Your task to perform on an android device: turn on data saver in the chrome app Image 0: 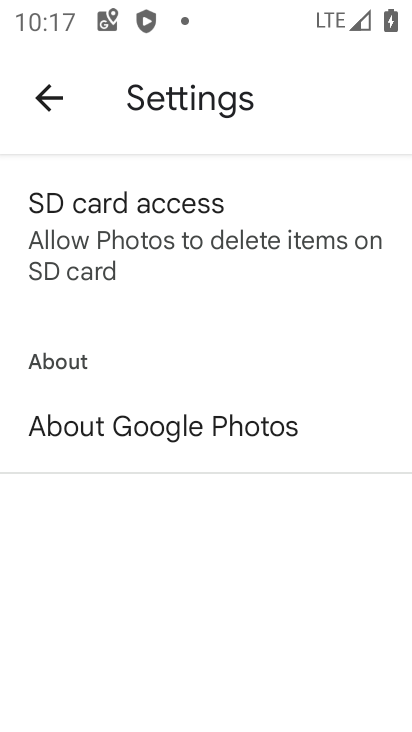
Step 0: press home button
Your task to perform on an android device: turn on data saver in the chrome app Image 1: 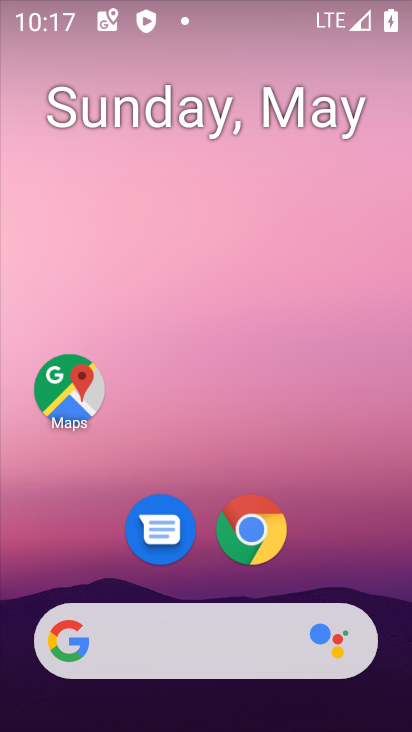
Step 1: click (275, 535)
Your task to perform on an android device: turn on data saver in the chrome app Image 2: 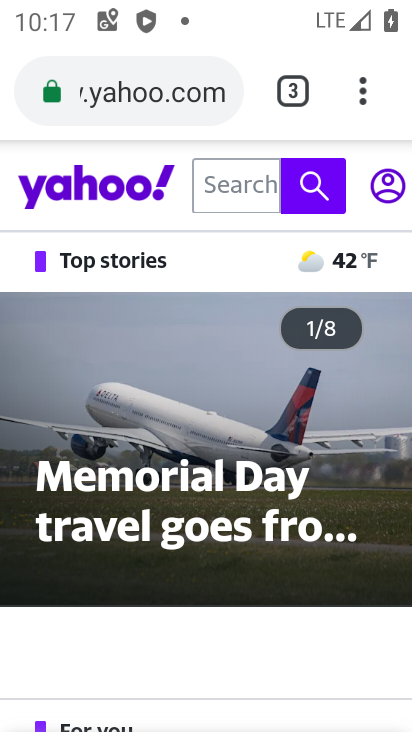
Step 2: click (354, 97)
Your task to perform on an android device: turn on data saver in the chrome app Image 3: 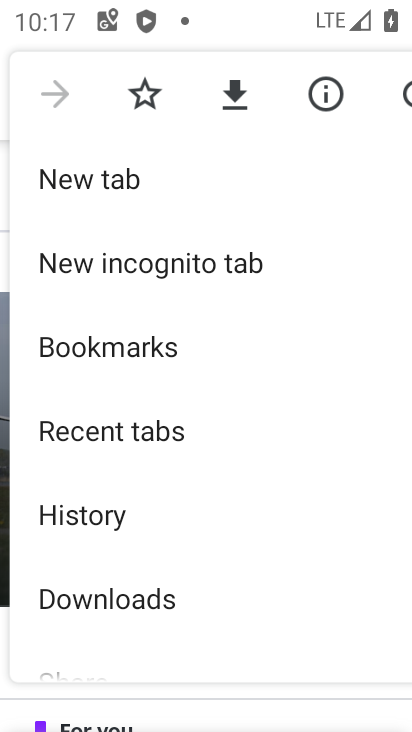
Step 3: drag from (269, 565) to (254, 295)
Your task to perform on an android device: turn on data saver in the chrome app Image 4: 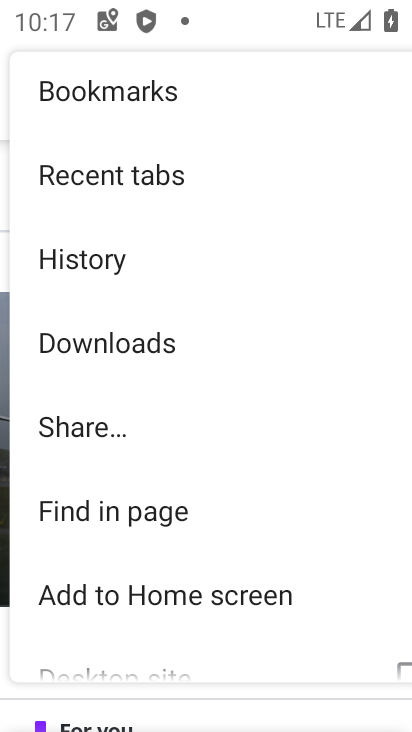
Step 4: drag from (174, 626) to (159, 209)
Your task to perform on an android device: turn on data saver in the chrome app Image 5: 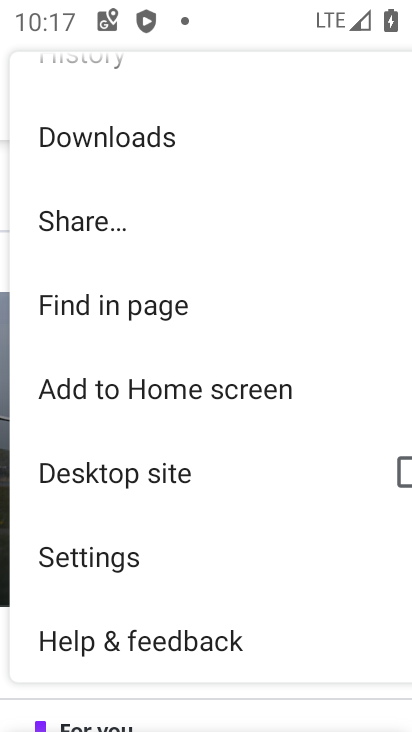
Step 5: click (193, 549)
Your task to perform on an android device: turn on data saver in the chrome app Image 6: 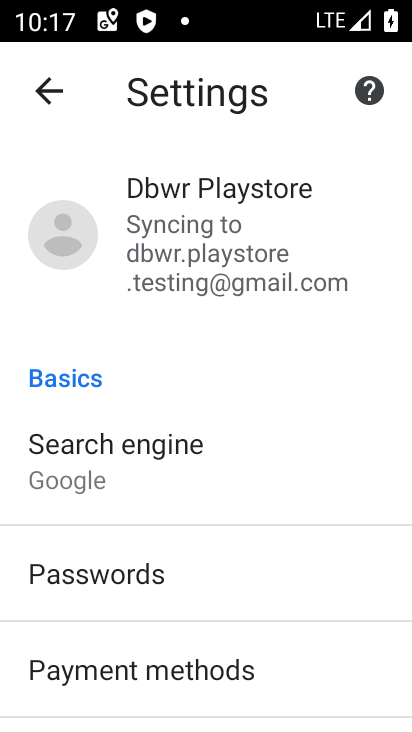
Step 6: drag from (244, 600) to (267, 169)
Your task to perform on an android device: turn on data saver in the chrome app Image 7: 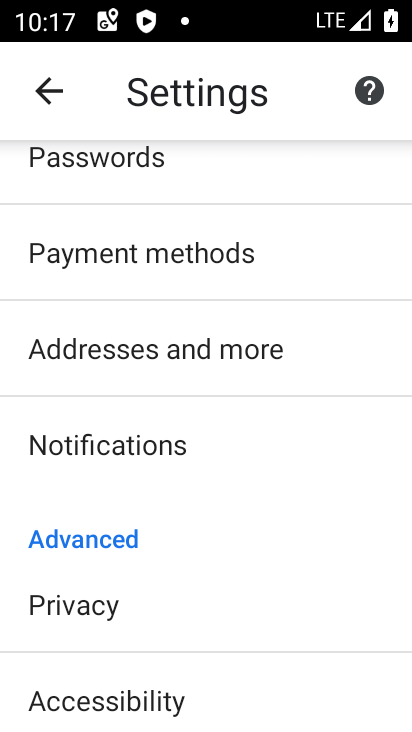
Step 7: drag from (223, 616) to (226, 238)
Your task to perform on an android device: turn on data saver in the chrome app Image 8: 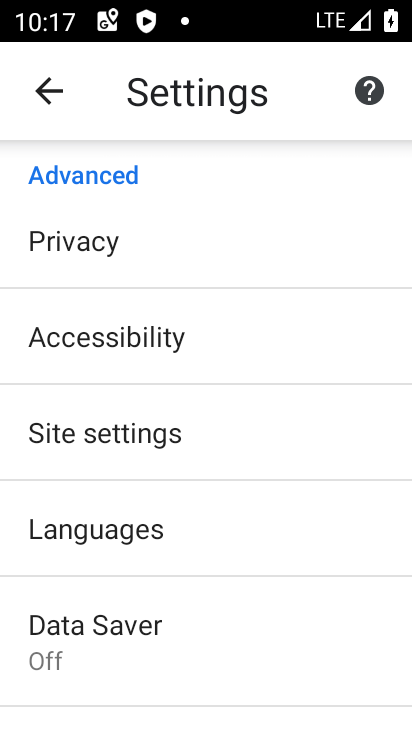
Step 8: click (237, 454)
Your task to perform on an android device: turn on data saver in the chrome app Image 9: 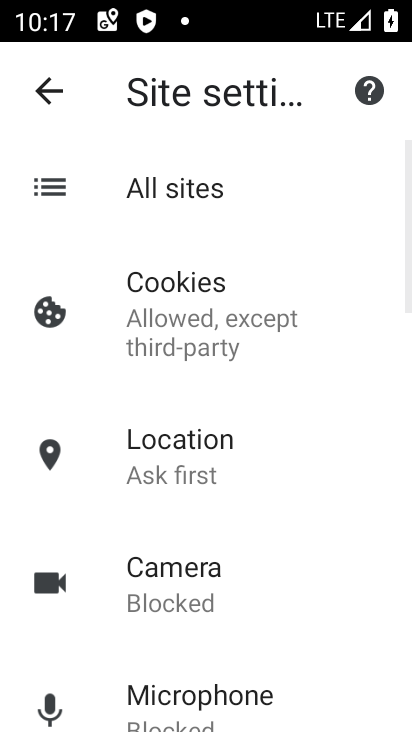
Step 9: click (35, 108)
Your task to perform on an android device: turn on data saver in the chrome app Image 10: 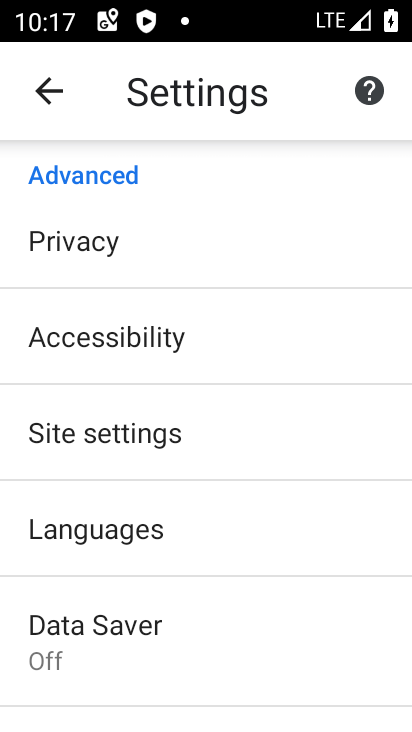
Step 10: click (146, 669)
Your task to perform on an android device: turn on data saver in the chrome app Image 11: 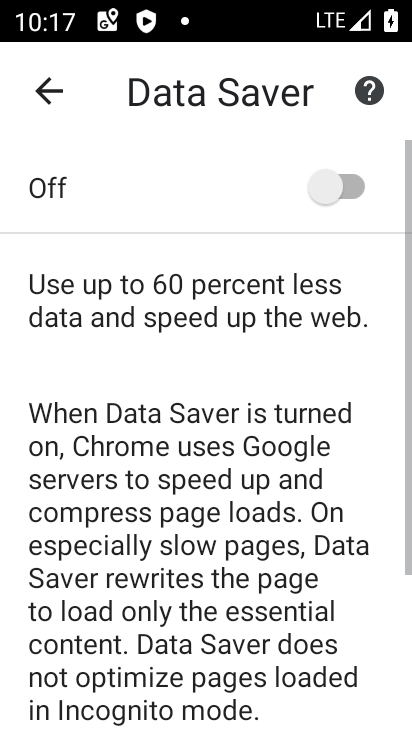
Step 11: click (331, 218)
Your task to perform on an android device: turn on data saver in the chrome app Image 12: 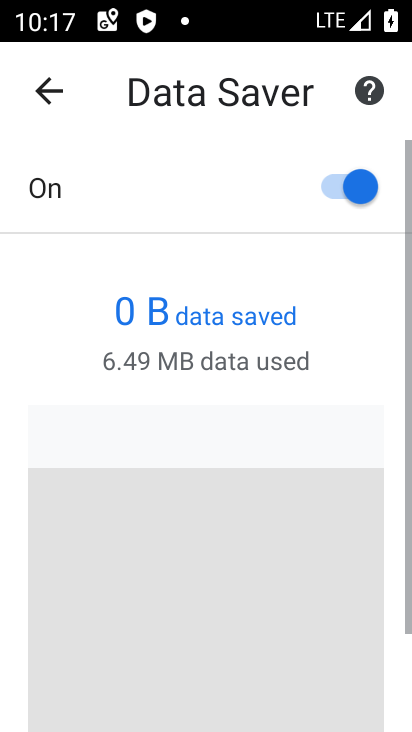
Step 12: task complete